Your task to perform on an android device: Add razer blackwidow to the cart on bestbuy, then select checkout. Image 0: 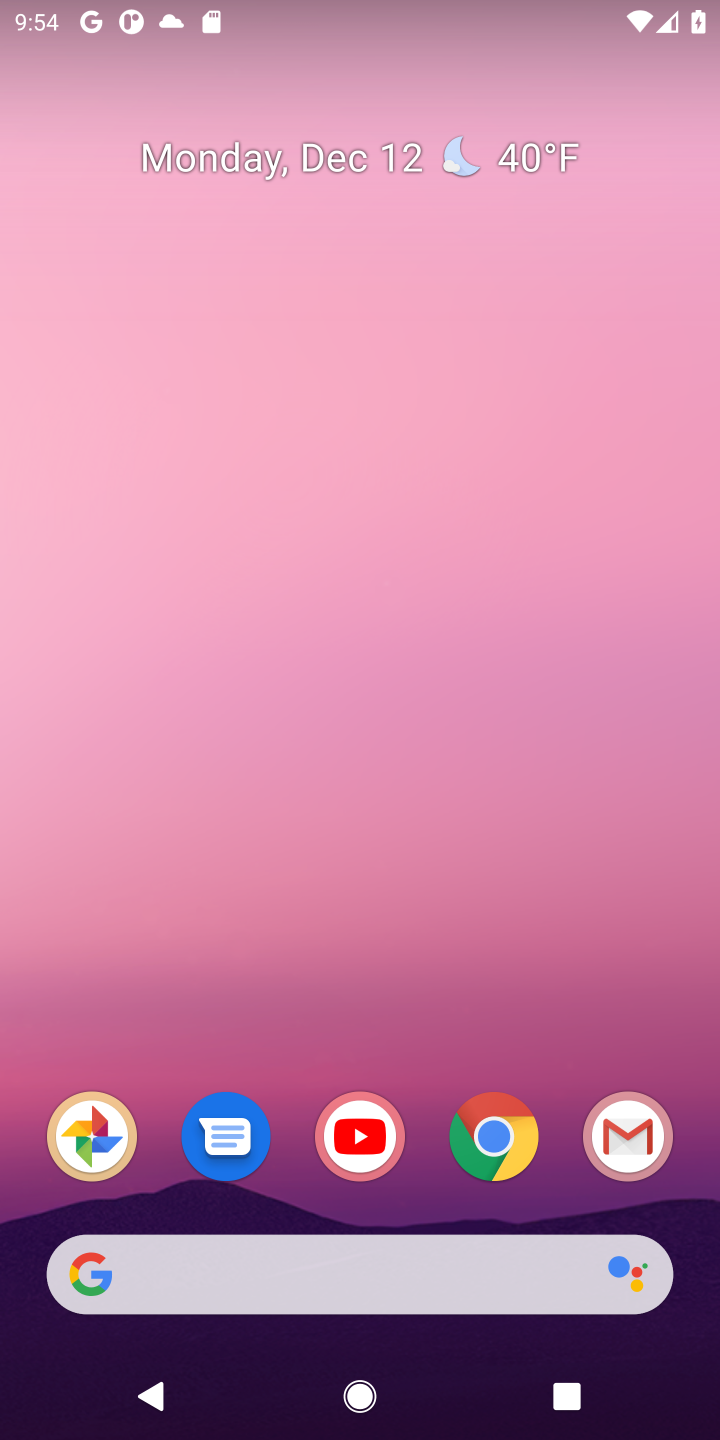
Step 0: click (490, 1144)
Your task to perform on an android device: Add razer blackwidow to the cart on bestbuy, then select checkout. Image 1: 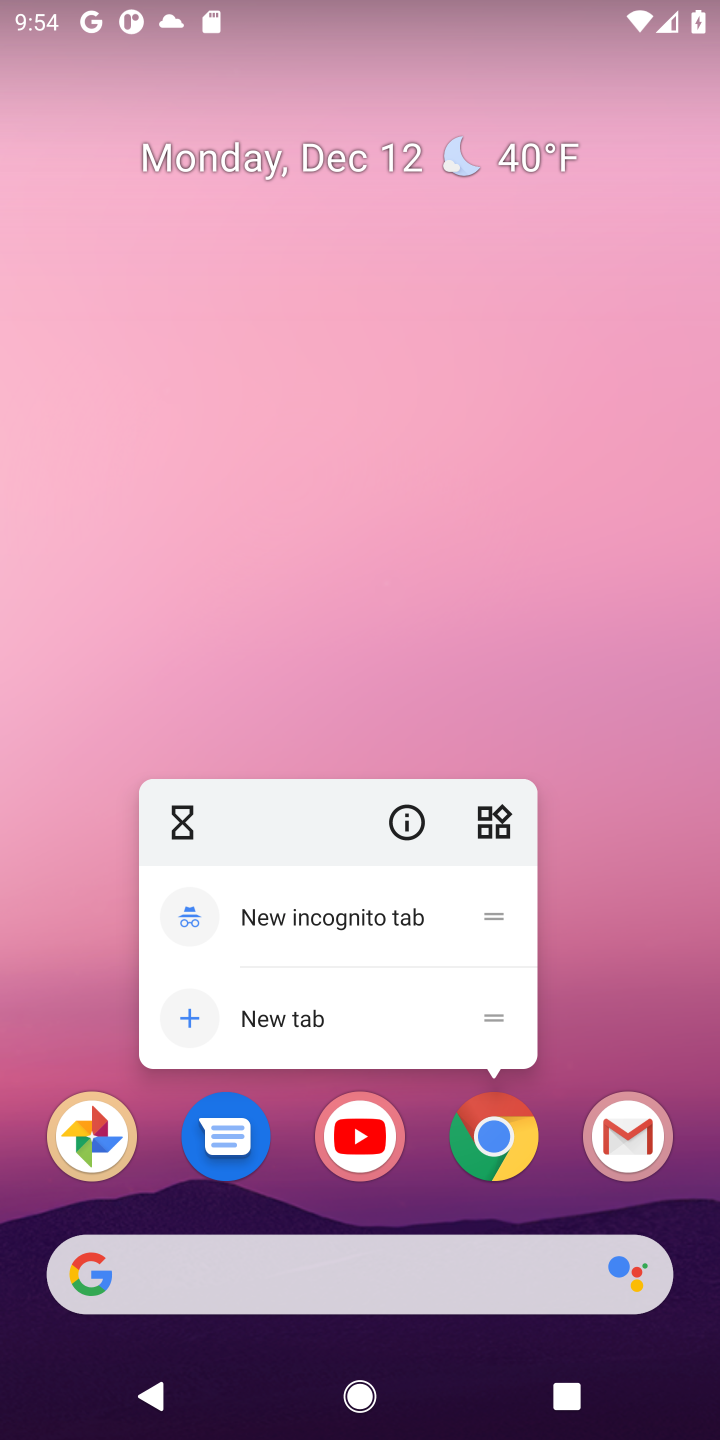
Step 1: click (490, 1144)
Your task to perform on an android device: Add razer blackwidow to the cart on bestbuy, then select checkout. Image 2: 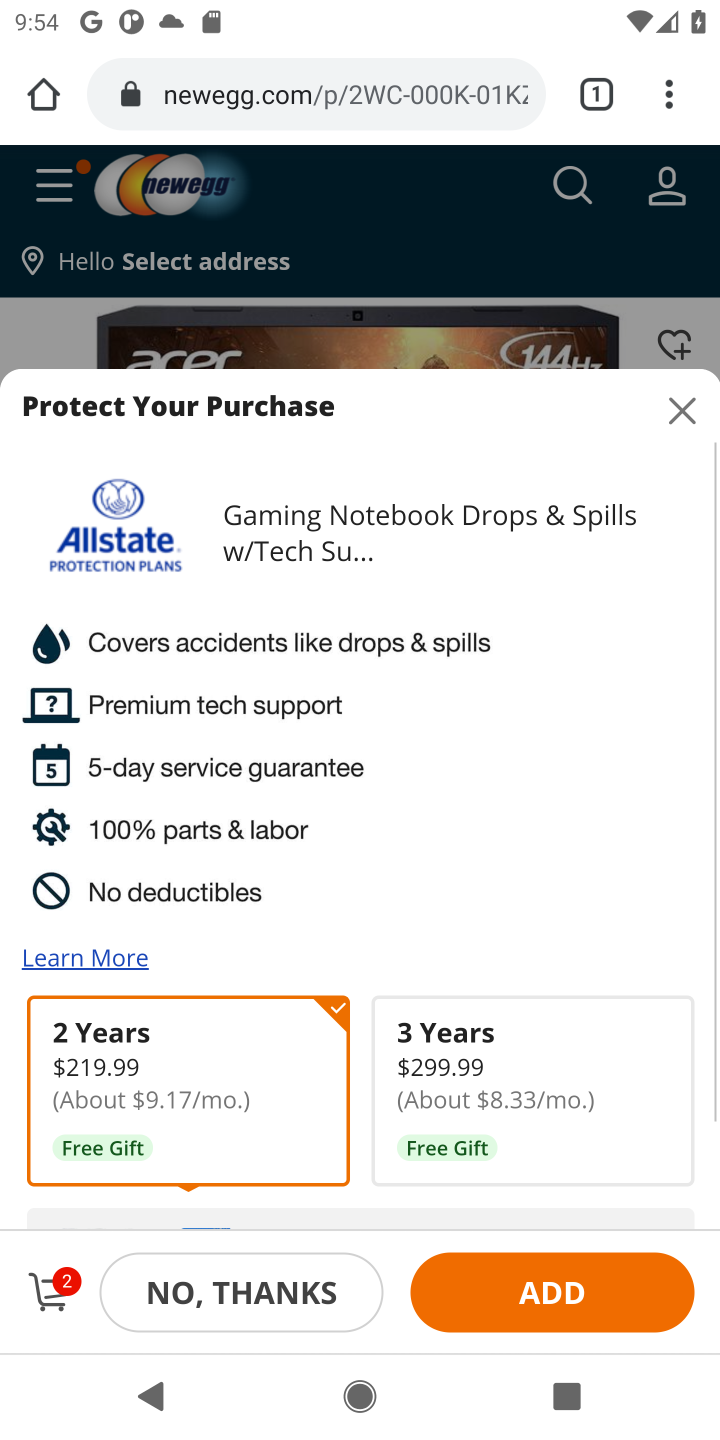
Step 2: click (282, 113)
Your task to perform on an android device: Add razer blackwidow to the cart on bestbuy, then select checkout. Image 3: 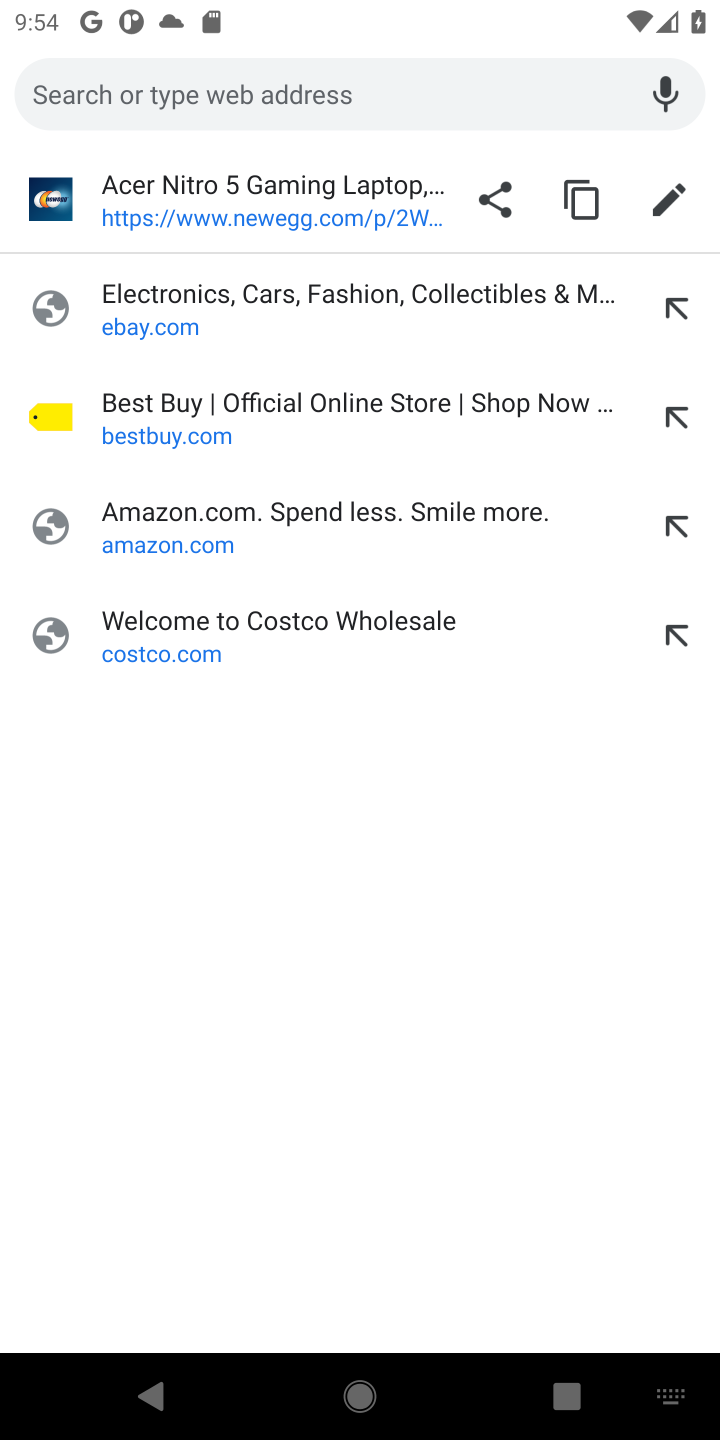
Step 3: click (199, 445)
Your task to perform on an android device: Add razer blackwidow to the cart on bestbuy, then select checkout. Image 4: 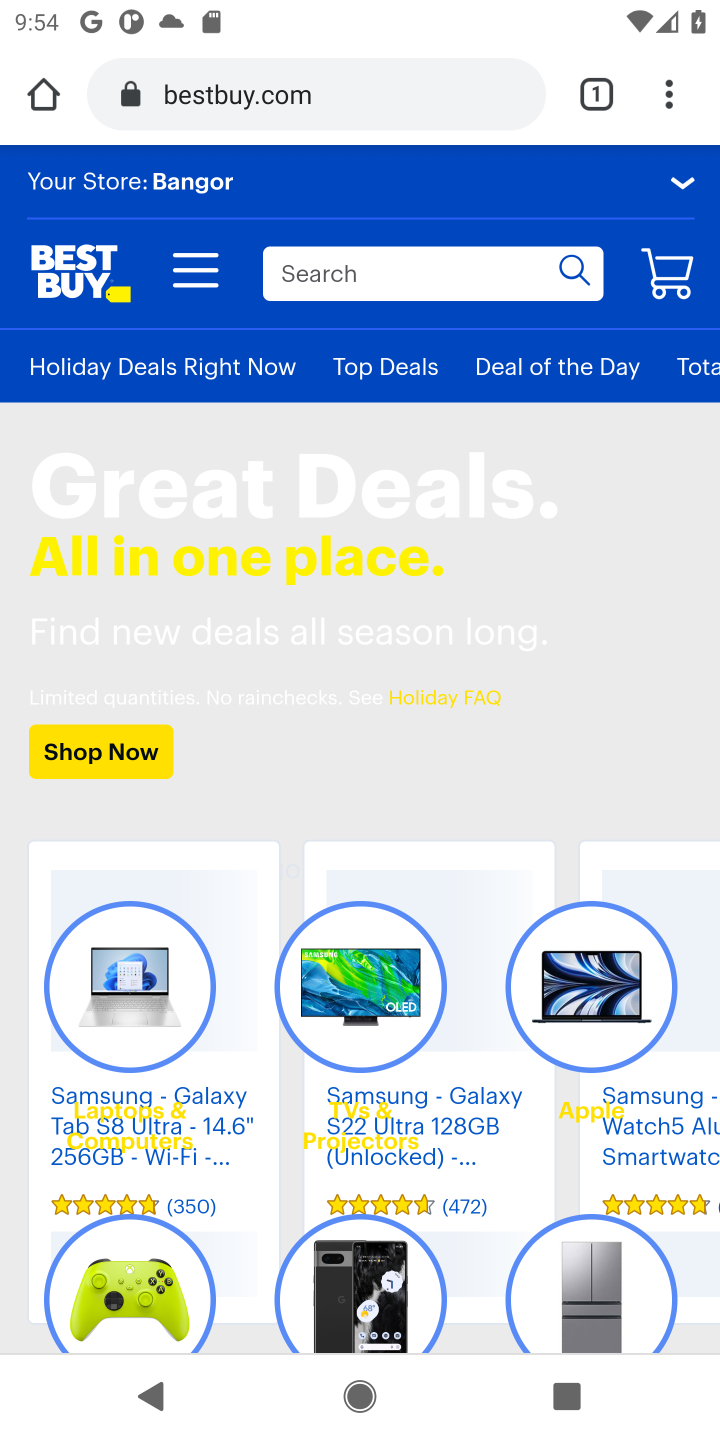
Step 4: click (348, 284)
Your task to perform on an android device: Add razer blackwidow to the cart on bestbuy, then select checkout. Image 5: 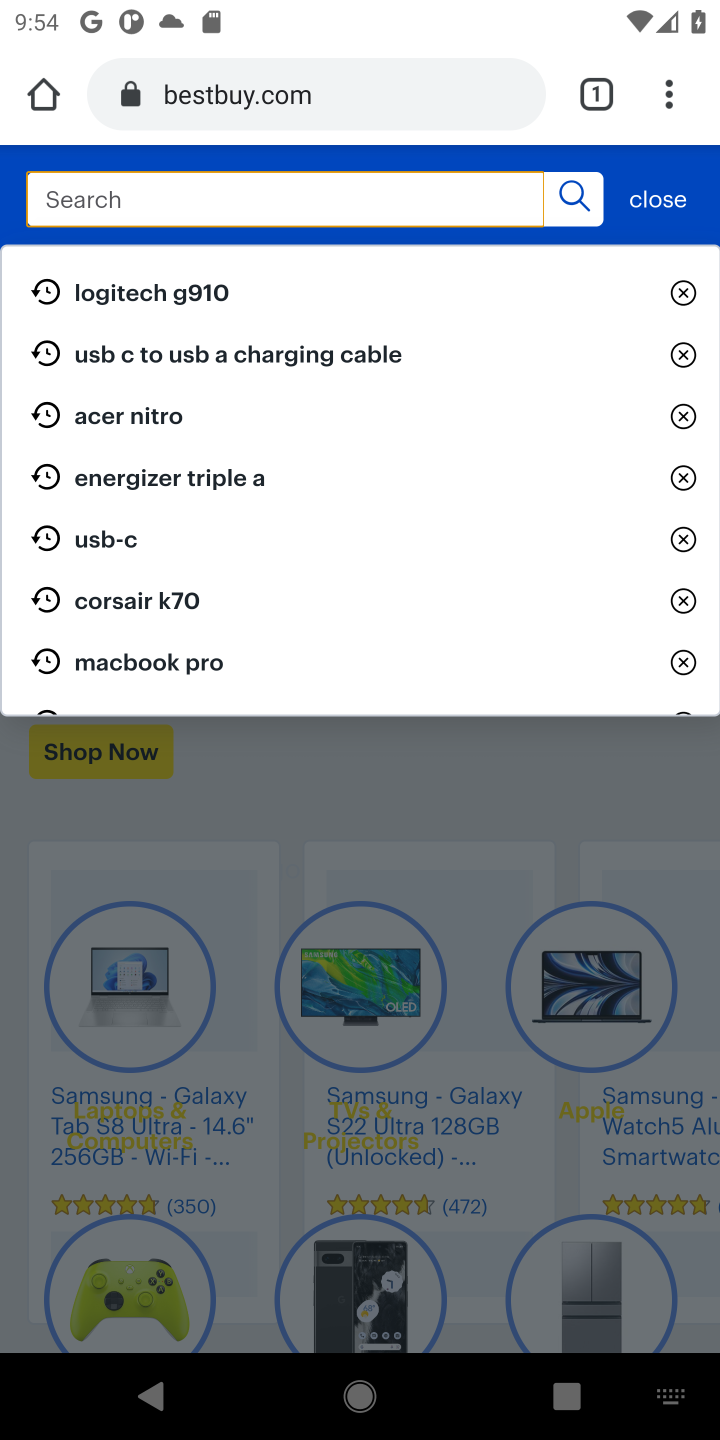
Step 5: type "razer blackwidow"
Your task to perform on an android device: Add razer blackwidow to the cart on bestbuy, then select checkout. Image 6: 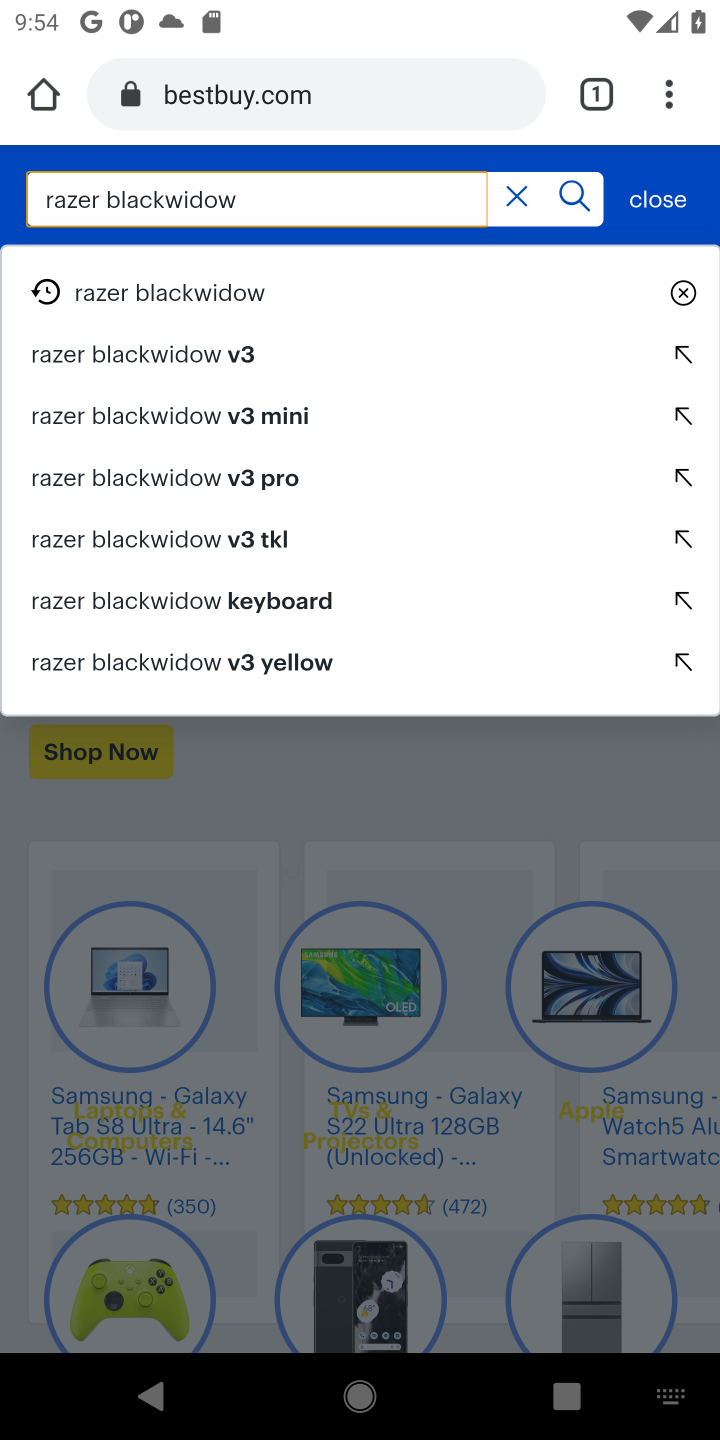
Step 6: click (184, 312)
Your task to perform on an android device: Add razer blackwidow to the cart on bestbuy, then select checkout. Image 7: 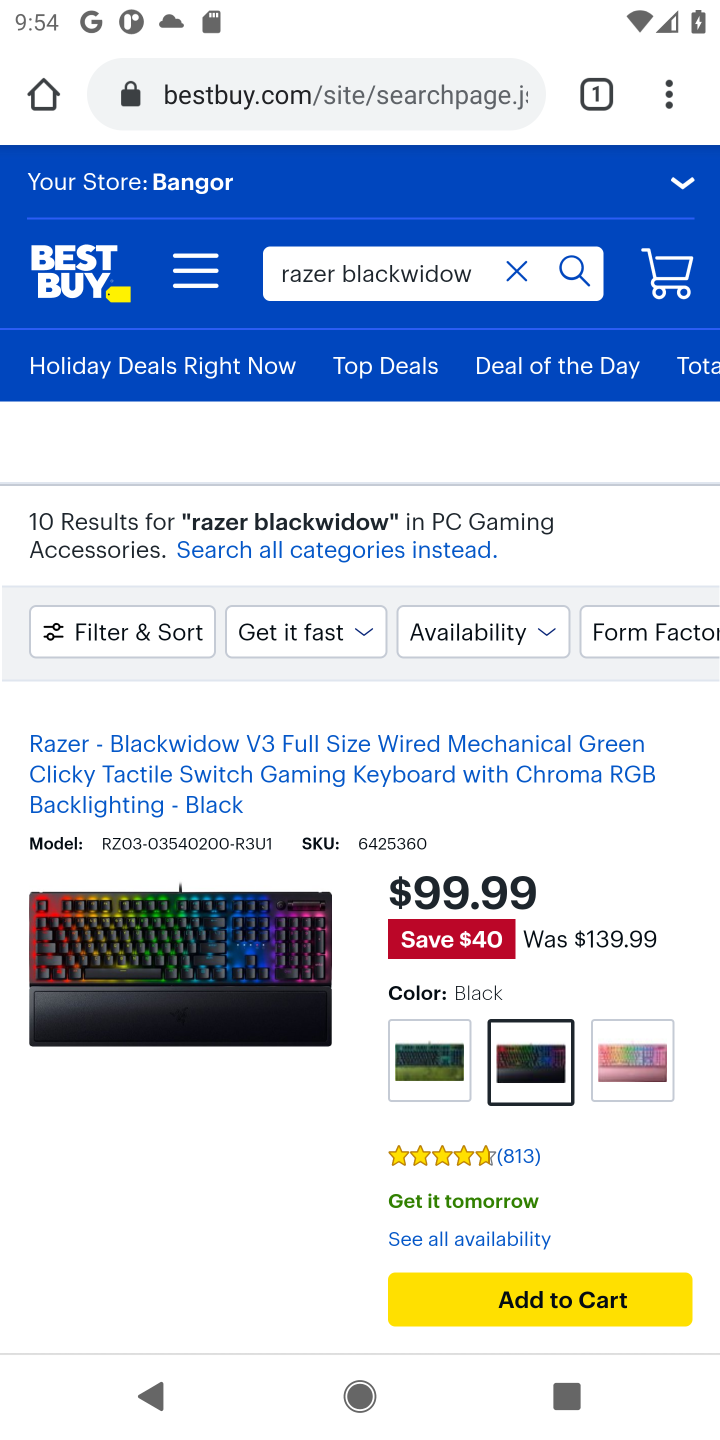
Step 7: drag from (210, 1043) to (222, 573)
Your task to perform on an android device: Add razer blackwidow to the cart on bestbuy, then select checkout. Image 8: 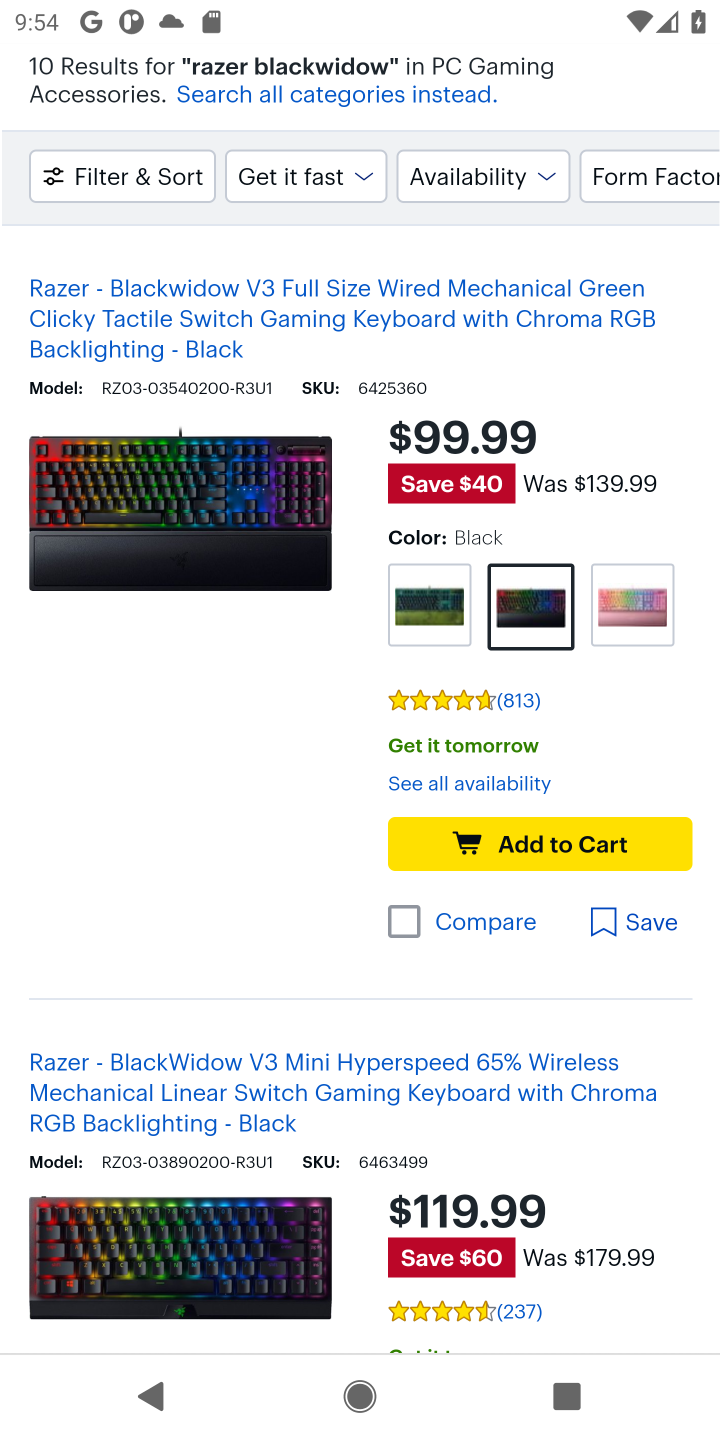
Step 8: click (520, 903)
Your task to perform on an android device: Add razer blackwidow to the cart on bestbuy, then select checkout. Image 9: 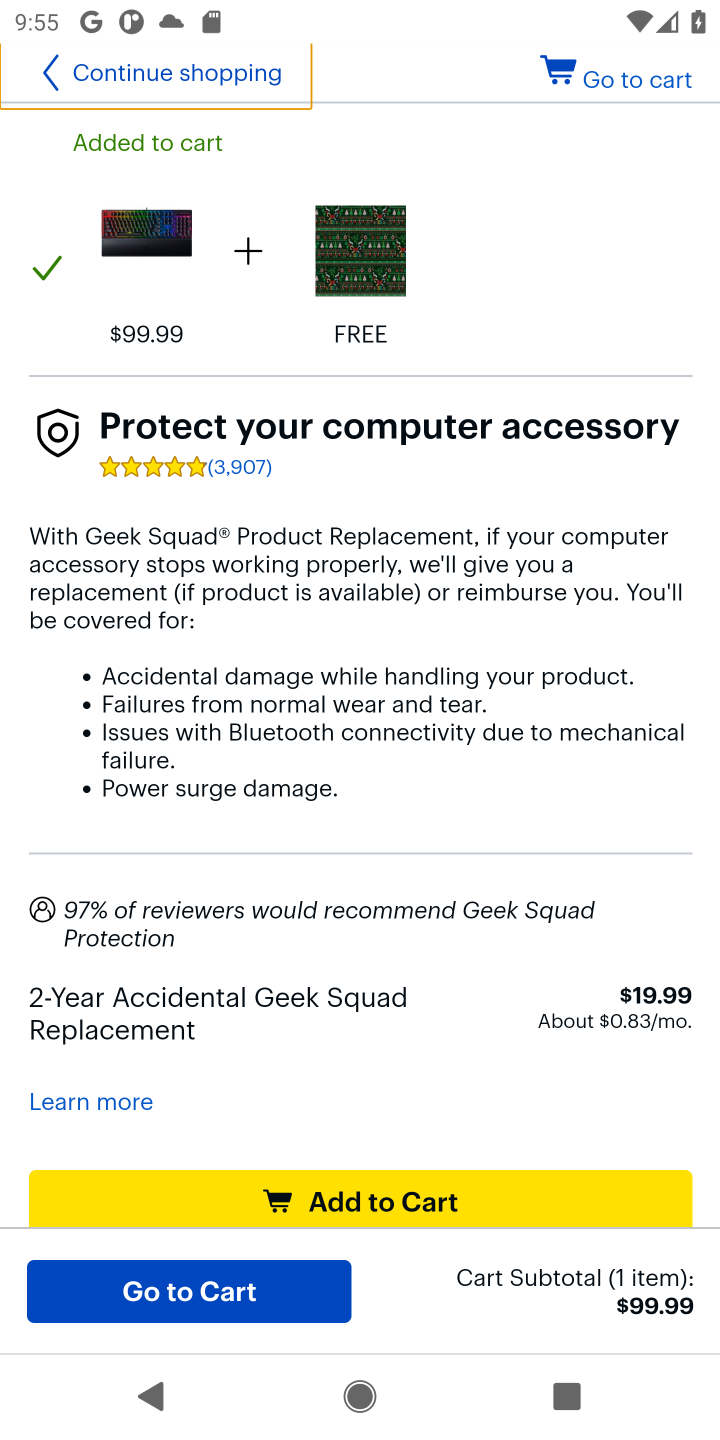
Step 9: click (624, 87)
Your task to perform on an android device: Add razer blackwidow to the cart on bestbuy, then select checkout. Image 10: 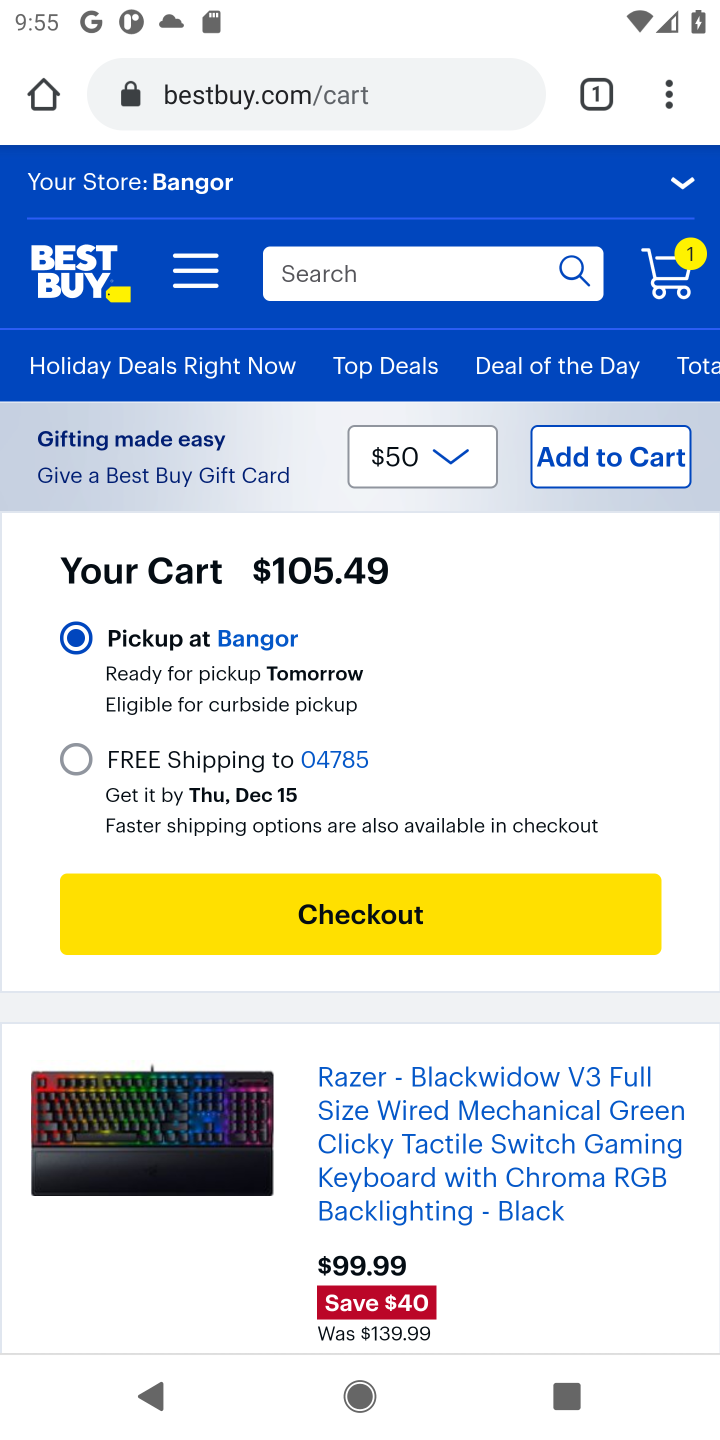
Step 10: click (334, 915)
Your task to perform on an android device: Add razer blackwidow to the cart on bestbuy, then select checkout. Image 11: 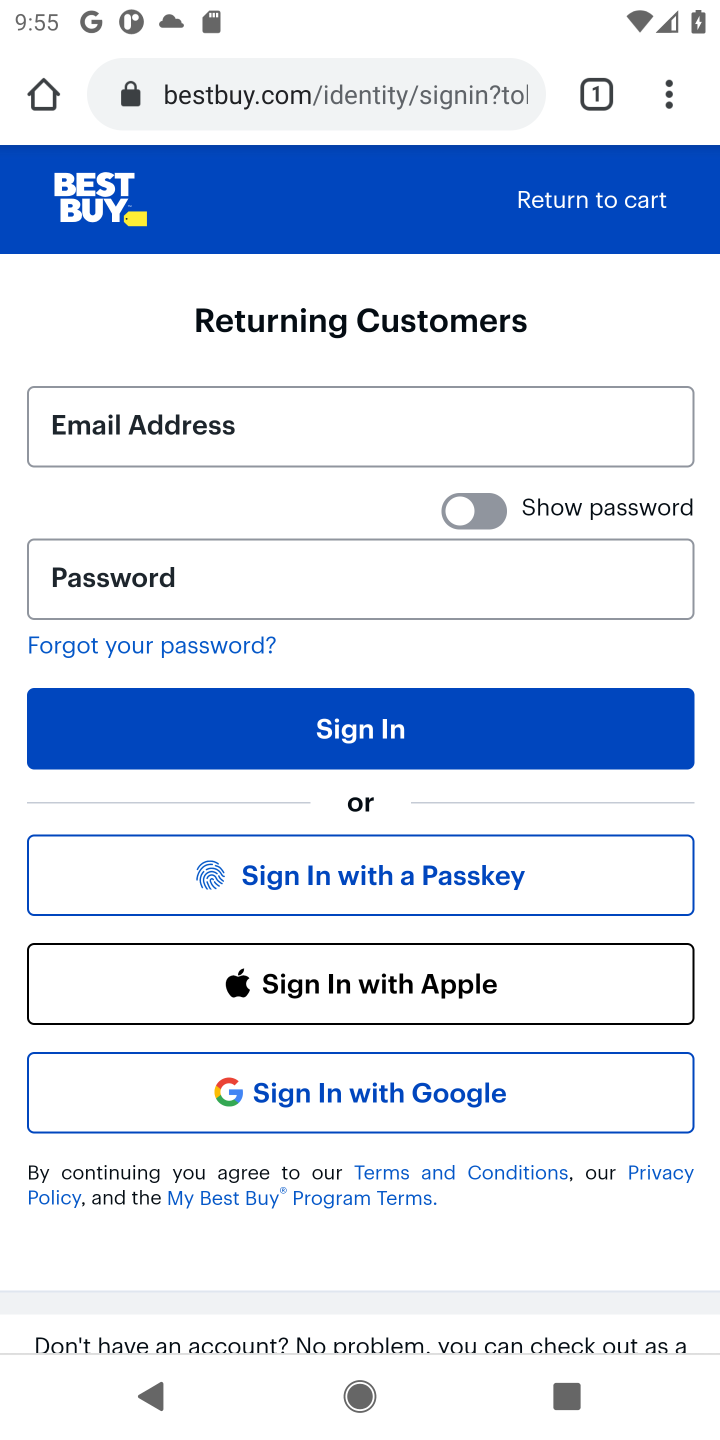
Step 11: task complete